Your task to perform on an android device: set the stopwatch Image 0: 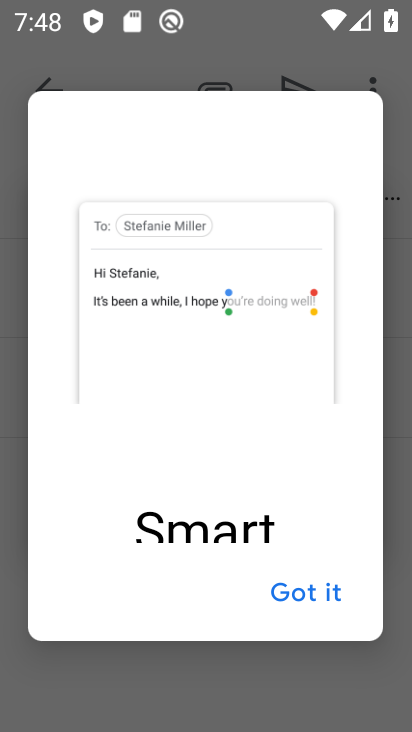
Step 0: press back button
Your task to perform on an android device: set the stopwatch Image 1: 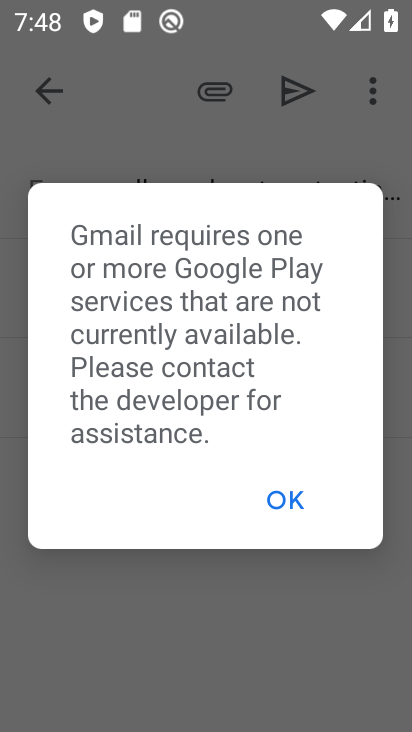
Step 1: press home button
Your task to perform on an android device: set the stopwatch Image 2: 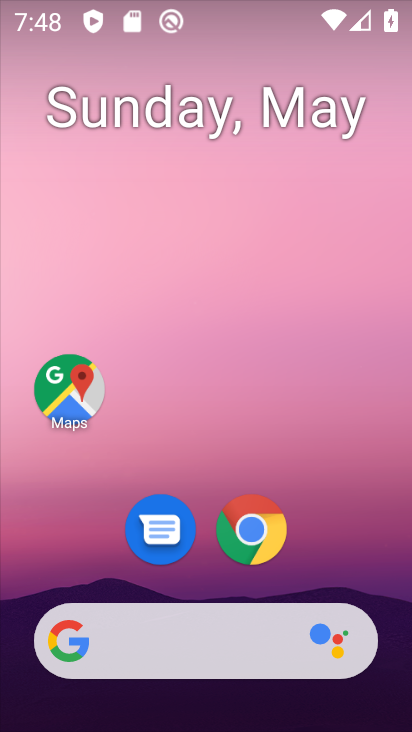
Step 2: drag from (210, 591) to (280, 105)
Your task to perform on an android device: set the stopwatch Image 3: 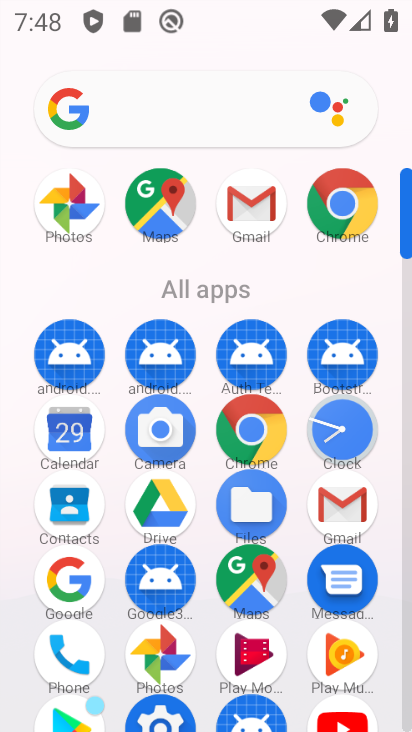
Step 3: click (336, 441)
Your task to perform on an android device: set the stopwatch Image 4: 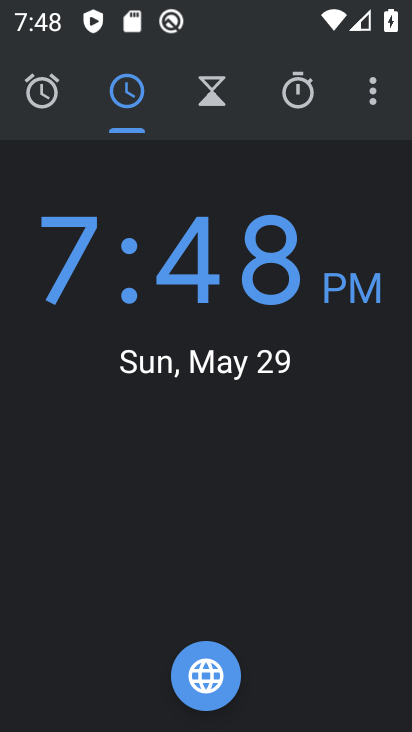
Step 4: click (299, 86)
Your task to perform on an android device: set the stopwatch Image 5: 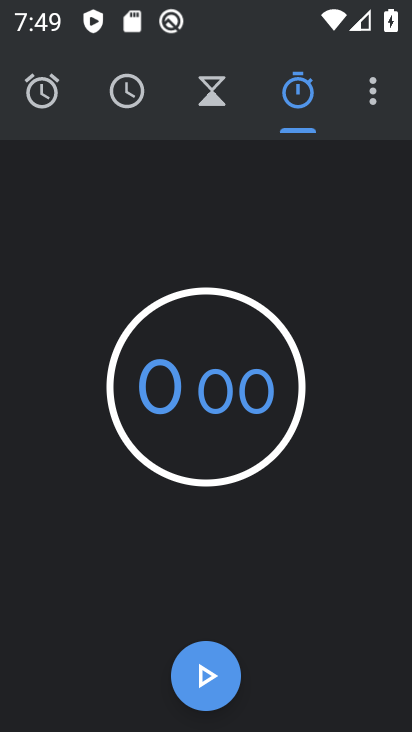
Step 5: task complete